Your task to perform on an android device: choose inbox layout in the gmail app Image 0: 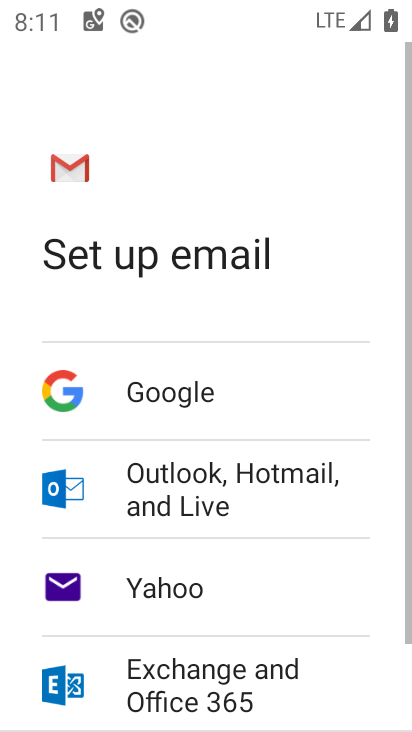
Step 0: press home button
Your task to perform on an android device: choose inbox layout in the gmail app Image 1: 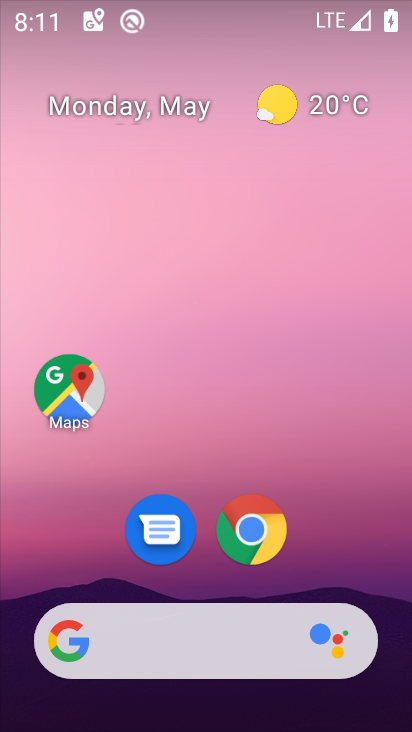
Step 1: drag from (33, 437) to (66, 365)
Your task to perform on an android device: choose inbox layout in the gmail app Image 2: 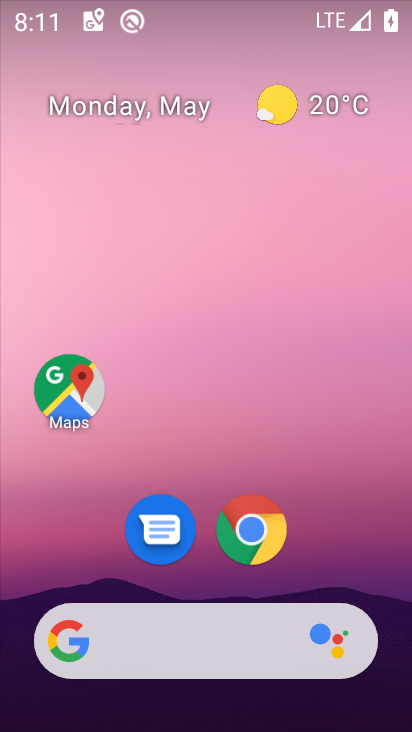
Step 2: drag from (20, 478) to (114, 175)
Your task to perform on an android device: choose inbox layout in the gmail app Image 3: 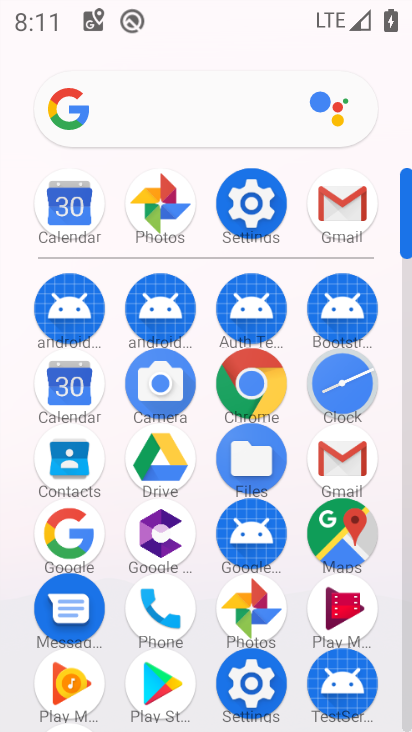
Step 3: click (346, 458)
Your task to perform on an android device: choose inbox layout in the gmail app Image 4: 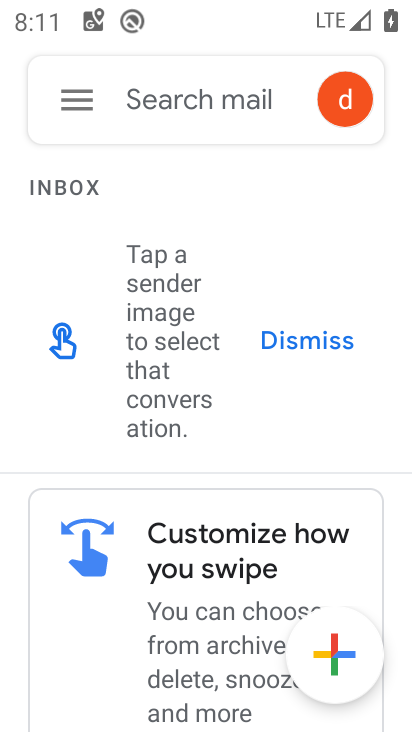
Step 4: task complete